Your task to perform on an android device: Open the calendar app, open the side menu, and click the "Day" option Image 0: 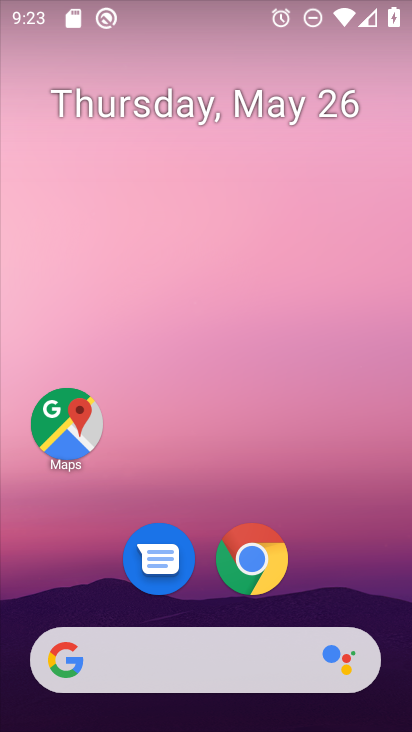
Step 0: drag from (337, 569) to (329, 116)
Your task to perform on an android device: Open the calendar app, open the side menu, and click the "Day" option Image 1: 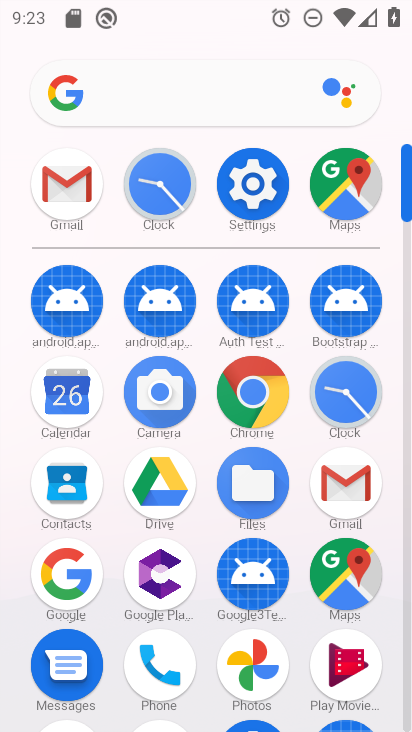
Step 1: click (74, 392)
Your task to perform on an android device: Open the calendar app, open the side menu, and click the "Day" option Image 2: 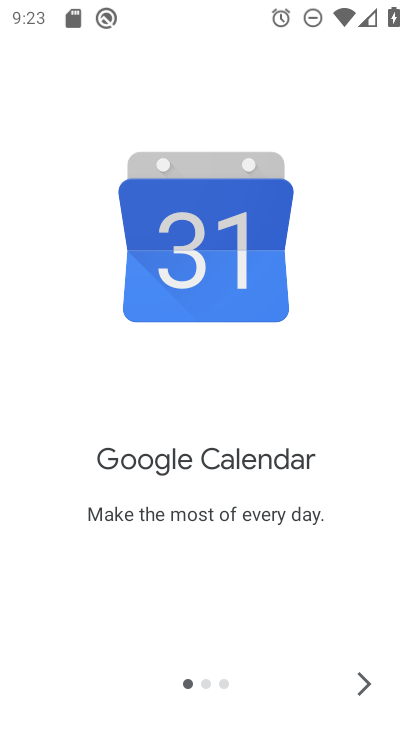
Step 2: click (357, 671)
Your task to perform on an android device: Open the calendar app, open the side menu, and click the "Day" option Image 3: 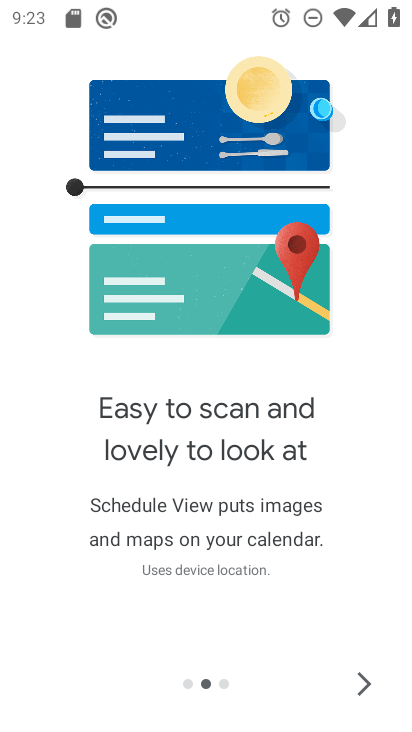
Step 3: click (357, 671)
Your task to perform on an android device: Open the calendar app, open the side menu, and click the "Day" option Image 4: 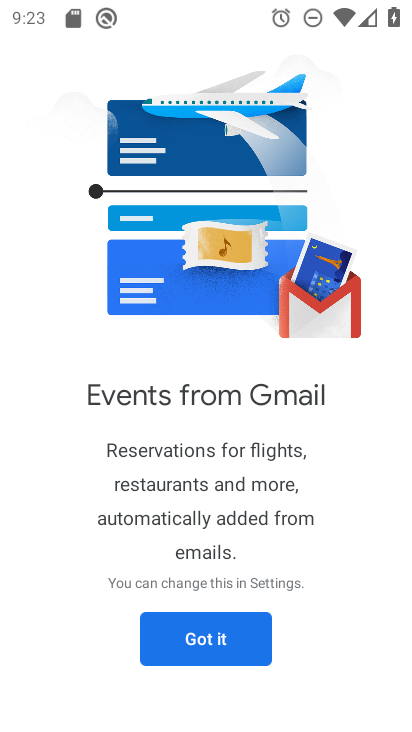
Step 4: click (226, 639)
Your task to perform on an android device: Open the calendar app, open the side menu, and click the "Day" option Image 5: 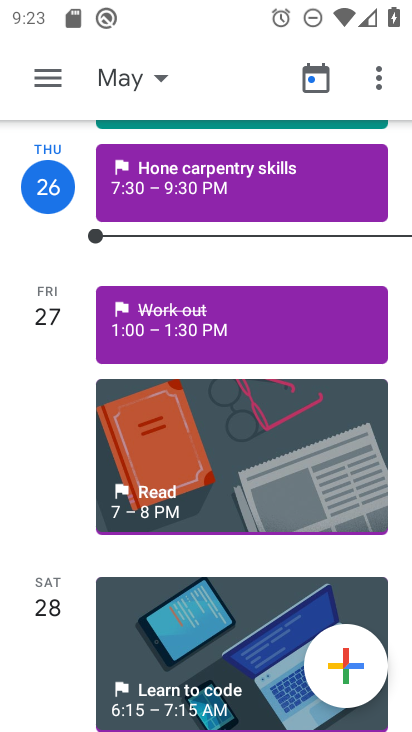
Step 5: click (46, 81)
Your task to perform on an android device: Open the calendar app, open the side menu, and click the "Day" option Image 6: 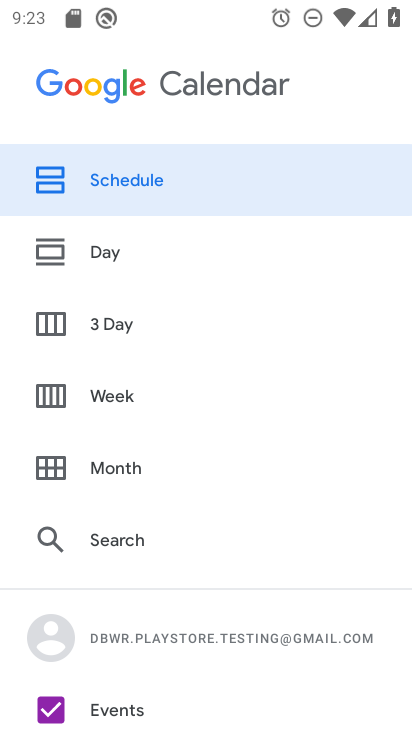
Step 6: click (130, 252)
Your task to perform on an android device: Open the calendar app, open the side menu, and click the "Day" option Image 7: 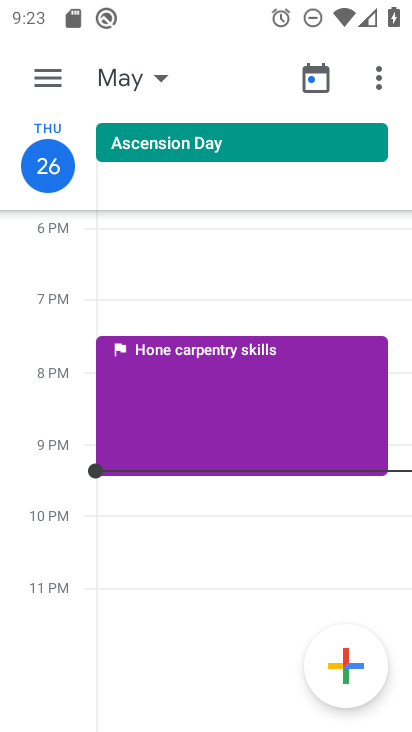
Step 7: task complete